Your task to perform on an android device: toggle translation in the chrome app Image 0: 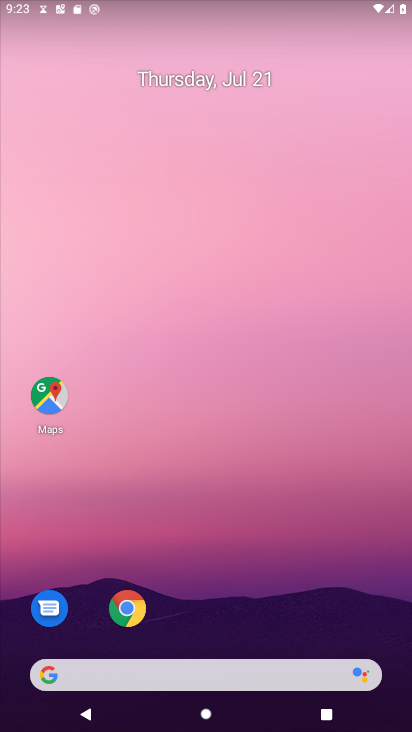
Step 0: click (122, 608)
Your task to perform on an android device: toggle translation in the chrome app Image 1: 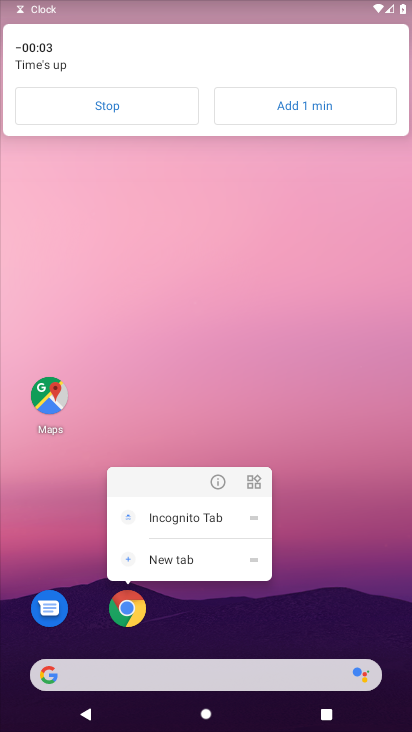
Step 1: click (105, 106)
Your task to perform on an android device: toggle translation in the chrome app Image 2: 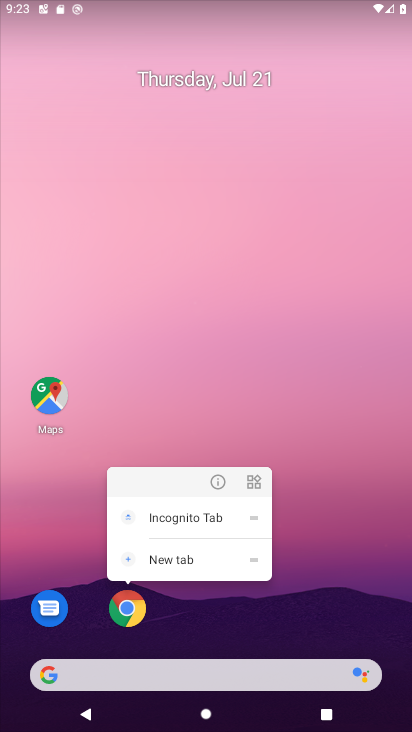
Step 2: click (128, 607)
Your task to perform on an android device: toggle translation in the chrome app Image 3: 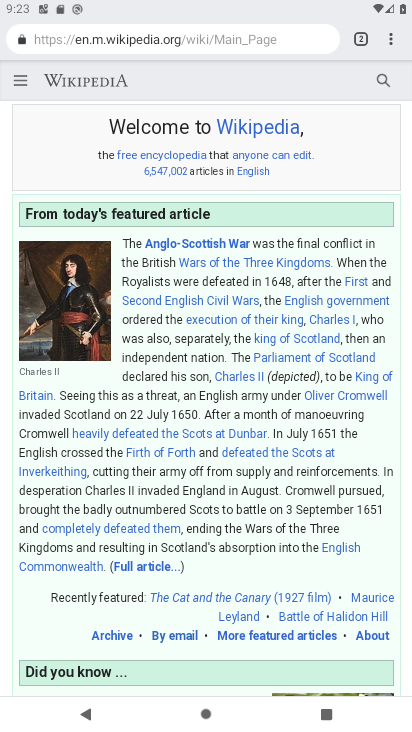
Step 3: click (392, 43)
Your task to perform on an android device: toggle translation in the chrome app Image 4: 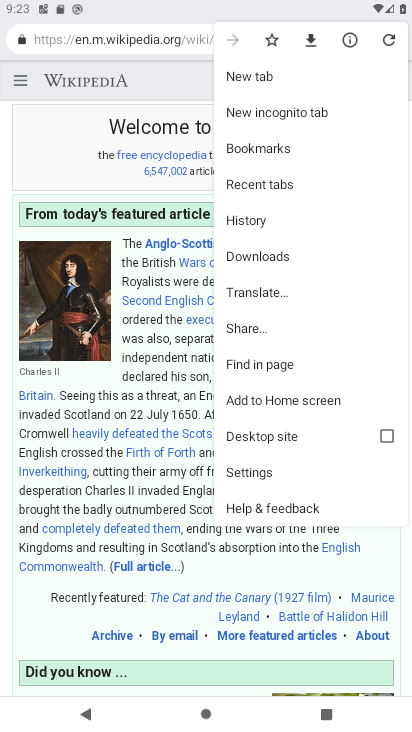
Step 4: click (245, 470)
Your task to perform on an android device: toggle translation in the chrome app Image 5: 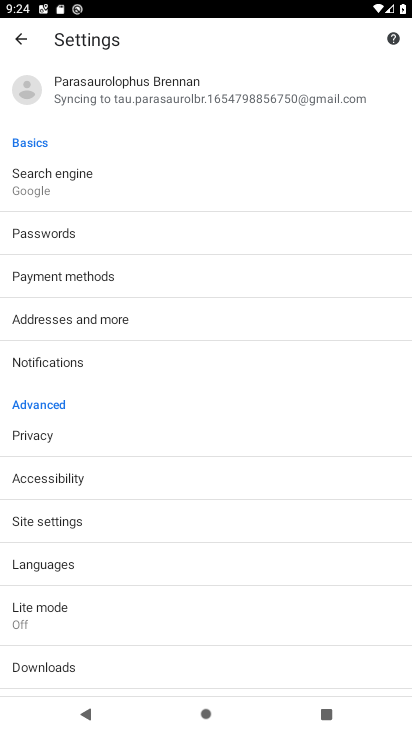
Step 5: click (61, 561)
Your task to perform on an android device: toggle translation in the chrome app Image 6: 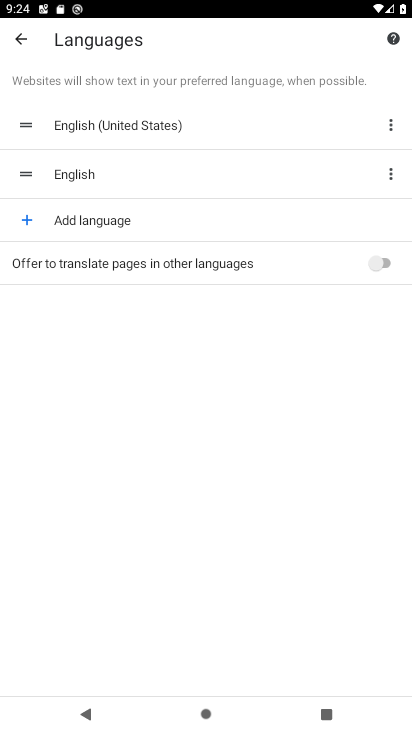
Step 6: click (381, 274)
Your task to perform on an android device: toggle translation in the chrome app Image 7: 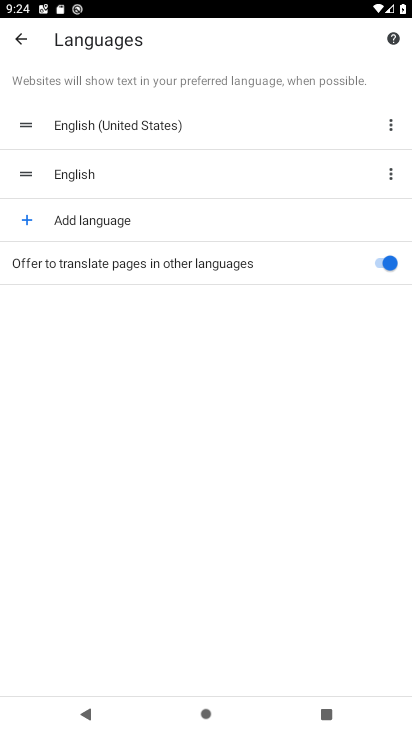
Step 7: task complete